Your task to perform on an android device: What's on my calendar tomorrow? Image 0: 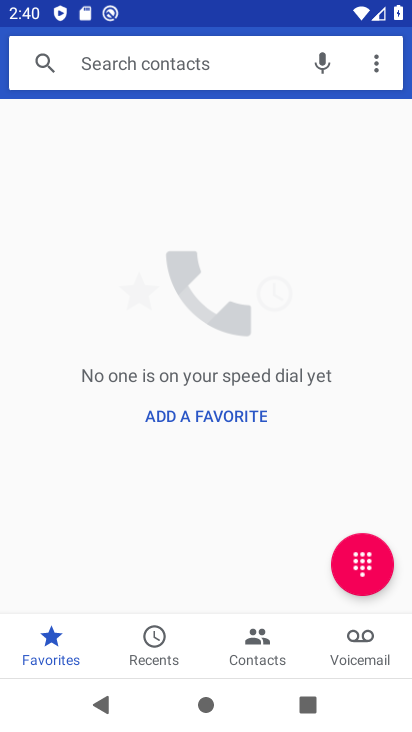
Step 0: press home button
Your task to perform on an android device: What's on my calendar tomorrow? Image 1: 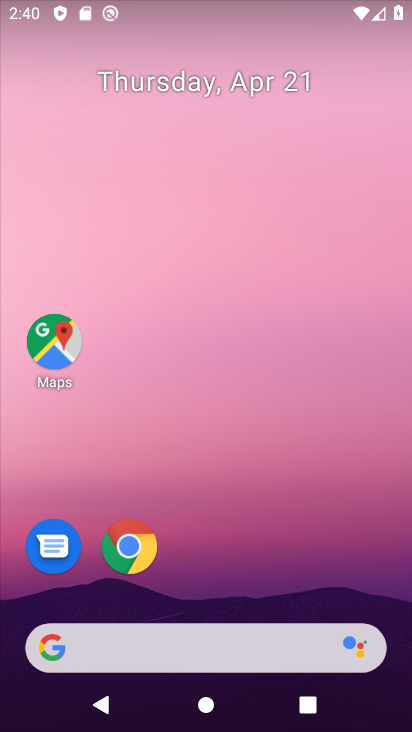
Step 1: drag from (263, 518) to (265, 15)
Your task to perform on an android device: What's on my calendar tomorrow? Image 2: 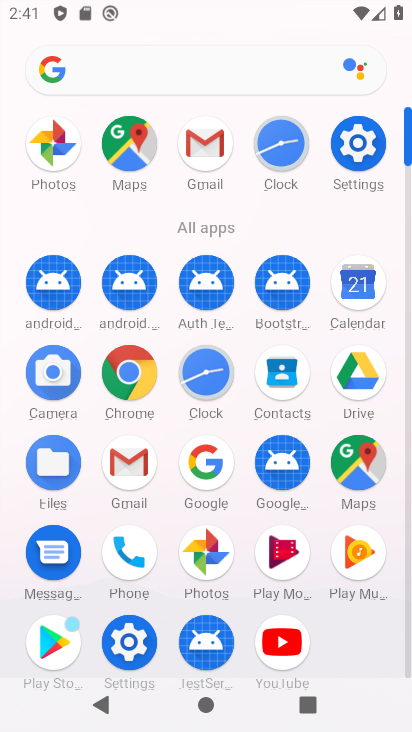
Step 2: click (355, 301)
Your task to perform on an android device: What's on my calendar tomorrow? Image 3: 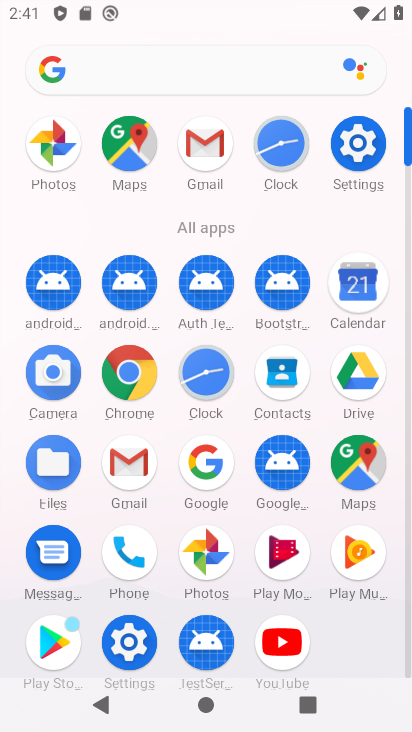
Step 3: click (361, 284)
Your task to perform on an android device: What's on my calendar tomorrow? Image 4: 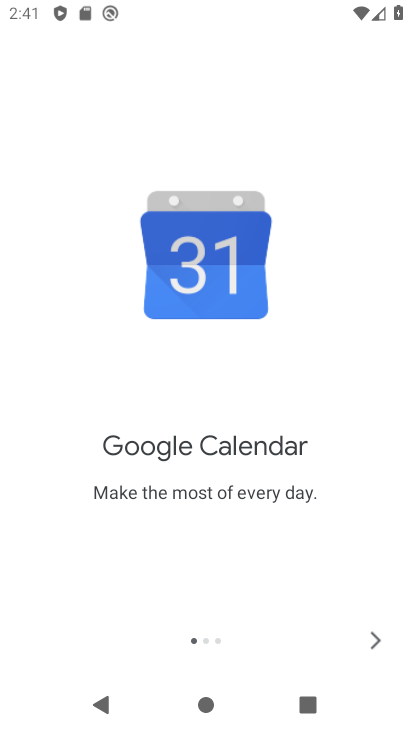
Step 4: click (378, 639)
Your task to perform on an android device: What's on my calendar tomorrow? Image 5: 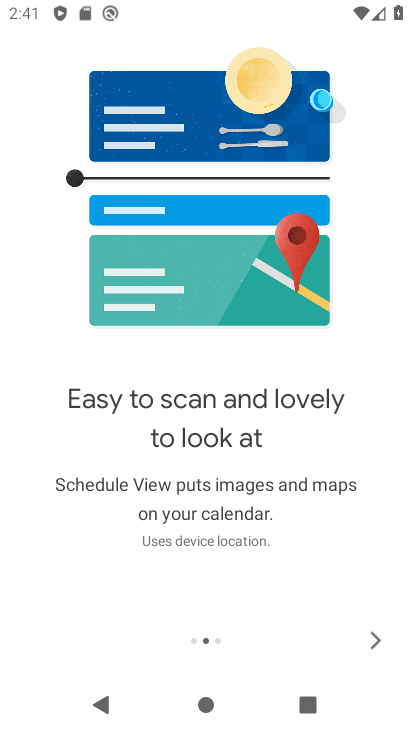
Step 5: click (378, 639)
Your task to perform on an android device: What's on my calendar tomorrow? Image 6: 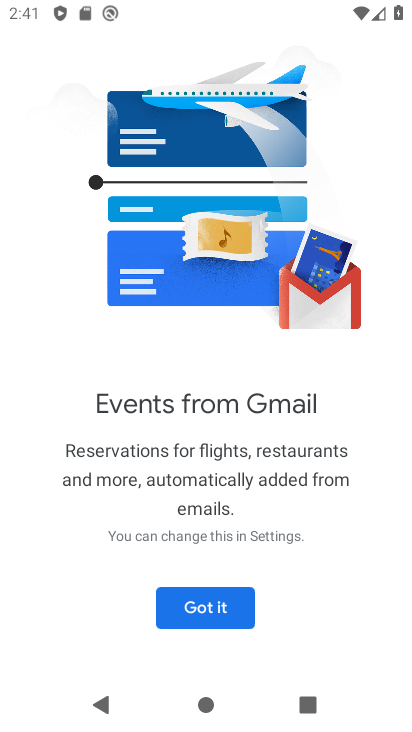
Step 6: click (188, 608)
Your task to perform on an android device: What's on my calendar tomorrow? Image 7: 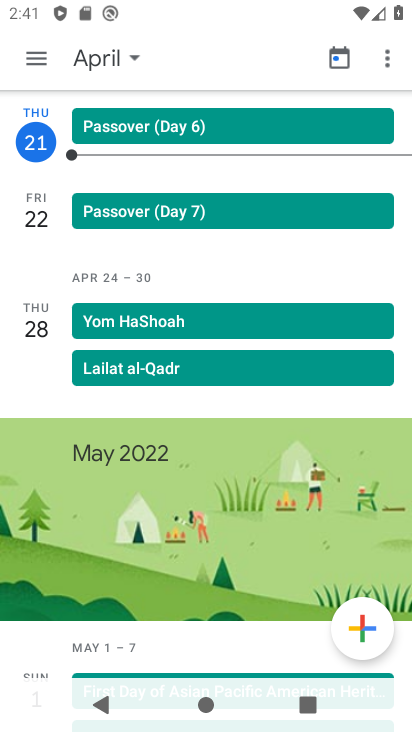
Step 7: click (36, 62)
Your task to perform on an android device: What's on my calendar tomorrow? Image 8: 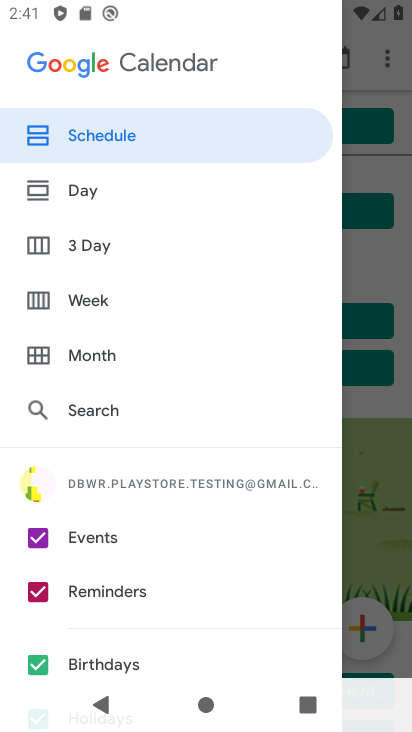
Step 8: click (91, 192)
Your task to perform on an android device: What's on my calendar tomorrow? Image 9: 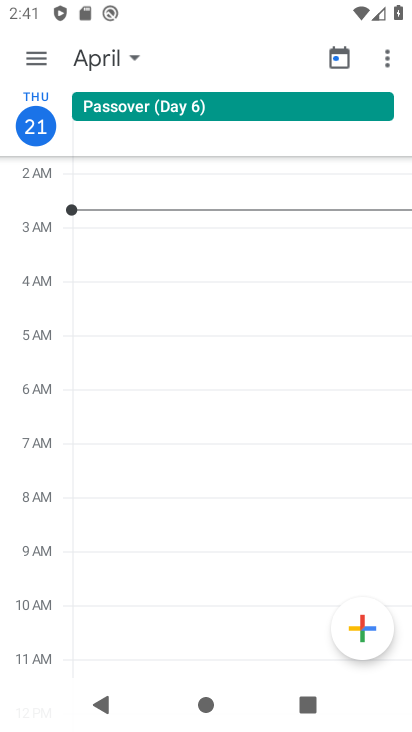
Step 9: click (101, 54)
Your task to perform on an android device: What's on my calendar tomorrow? Image 10: 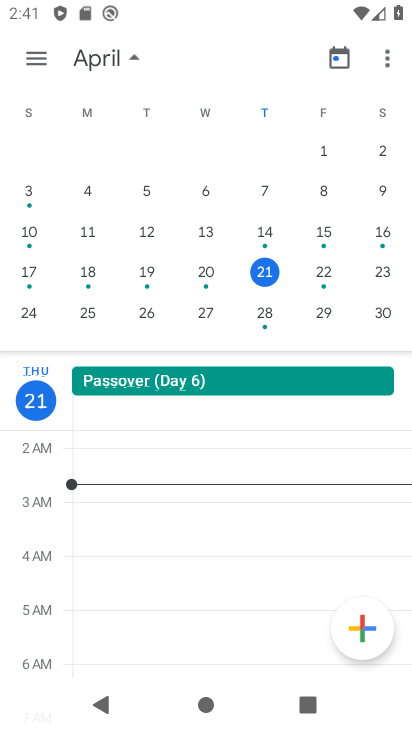
Step 10: click (320, 270)
Your task to perform on an android device: What's on my calendar tomorrow? Image 11: 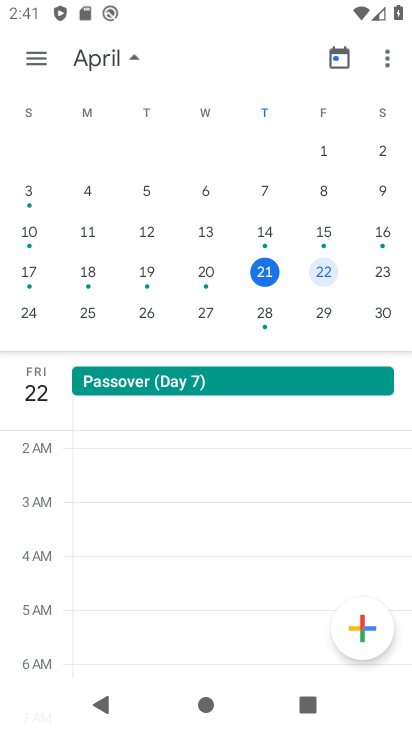
Step 11: task complete